Your task to perform on an android device: see creations saved in the google photos Image 0: 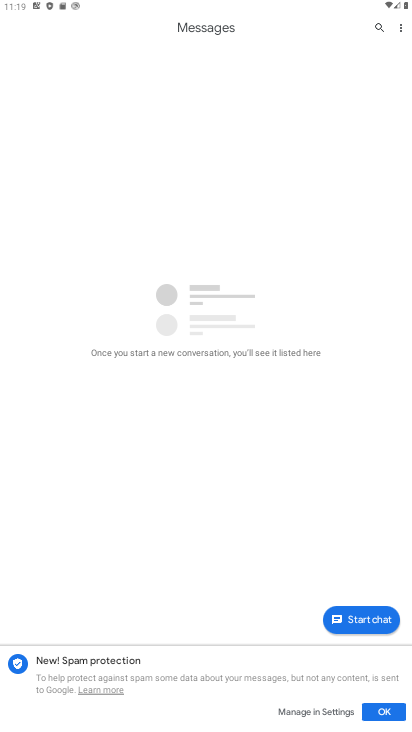
Step 0: press home button
Your task to perform on an android device: see creations saved in the google photos Image 1: 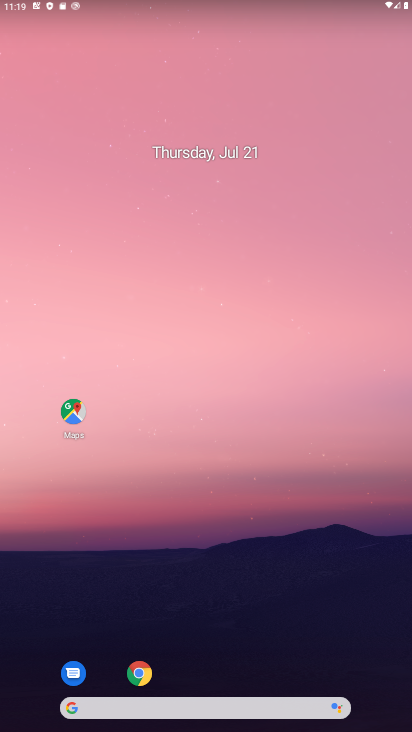
Step 1: drag from (206, 646) to (206, 154)
Your task to perform on an android device: see creations saved in the google photos Image 2: 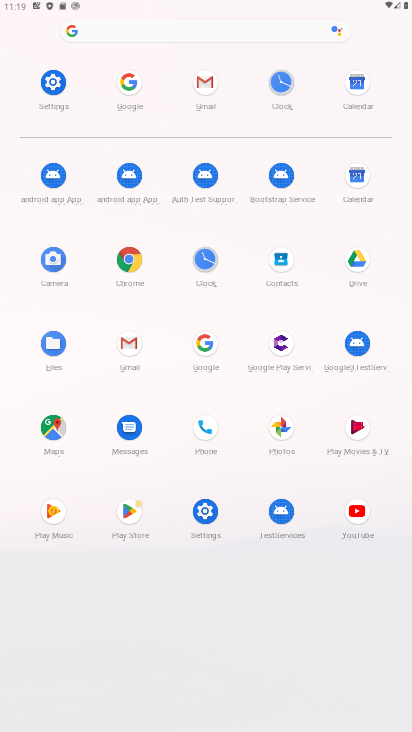
Step 2: click (272, 446)
Your task to perform on an android device: see creations saved in the google photos Image 3: 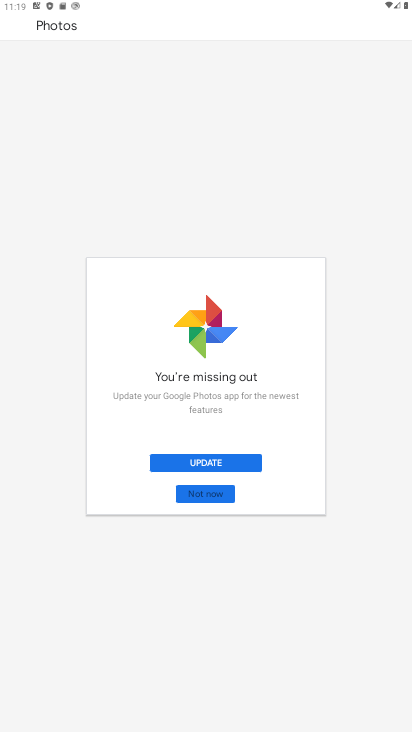
Step 3: click (227, 490)
Your task to perform on an android device: see creations saved in the google photos Image 4: 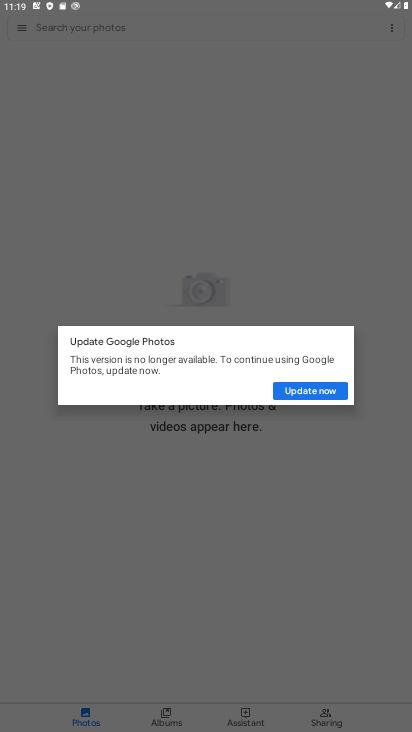
Step 4: click (303, 384)
Your task to perform on an android device: see creations saved in the google photos Image 5: 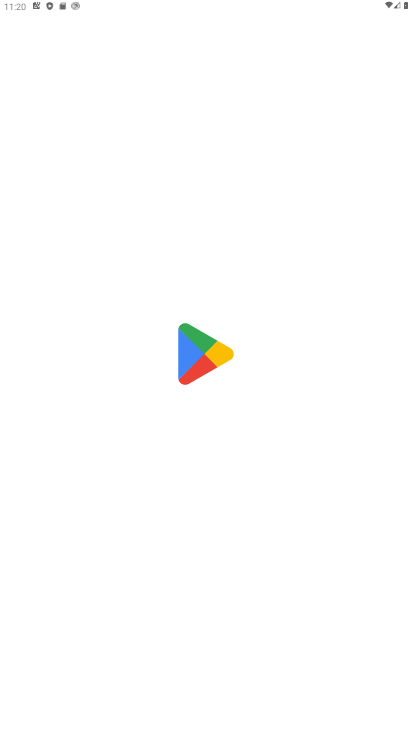
Step 5: press back button
Your task to perform on an android device: see creations saved in the google photos Image 6: 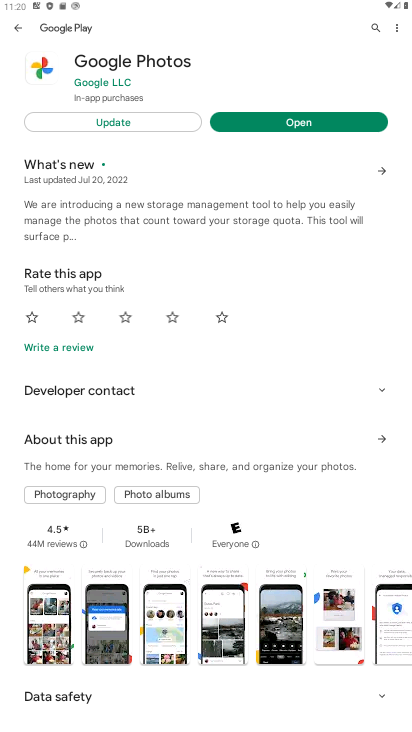
Step 6: click (278, 122)
Your task to perform on an android device: see creations saved in the google photos Image 7: 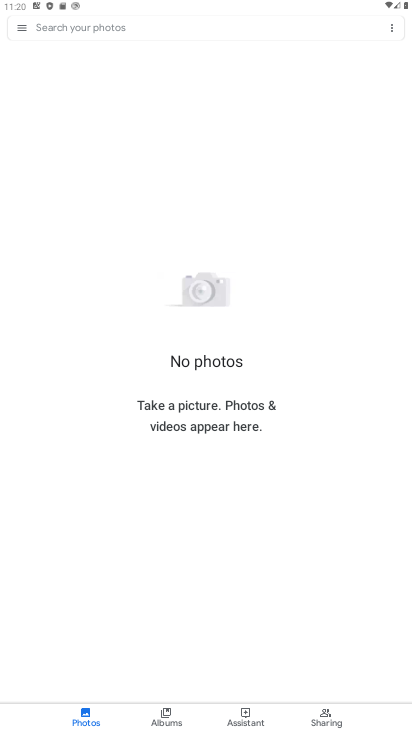
Step 7: click (136, 26)
Your task to perform on an android device: see creations saved in the google photos Image 8: 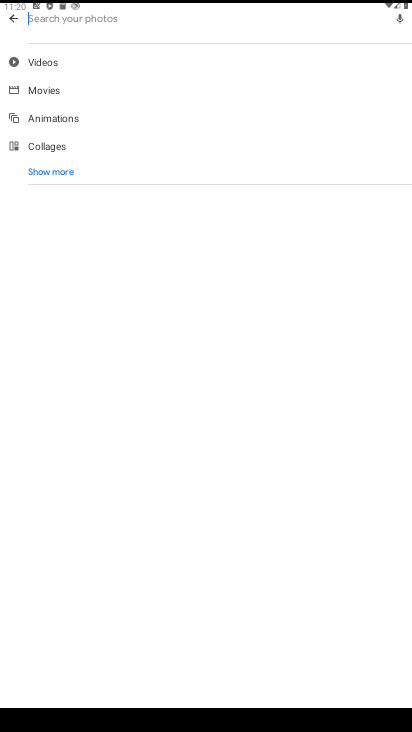
Step 8: click (62, 180)
Your task to perform on an android device: see creations saved in the google photos Image 9: 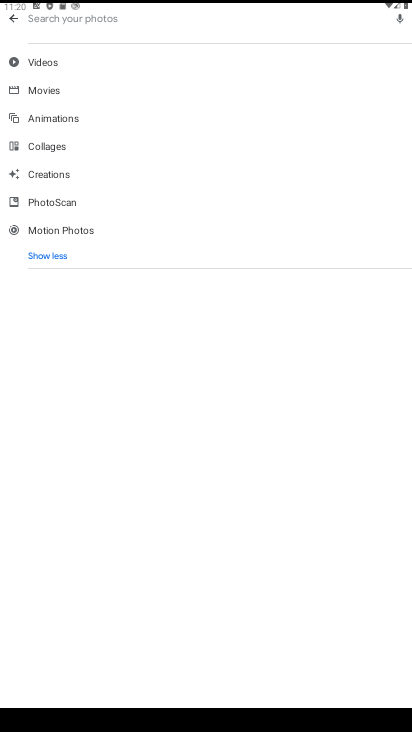
Step 9: click (65, 182)
Your task to perform on an android device: see creations saved in the google photos Image 10: 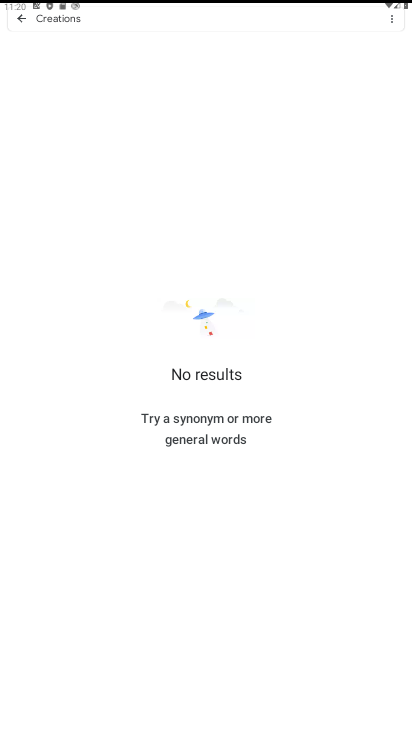
Step 10: task complete